Your task to perform on an android device: Open Google Maps and go to "Timeline" Image 0: 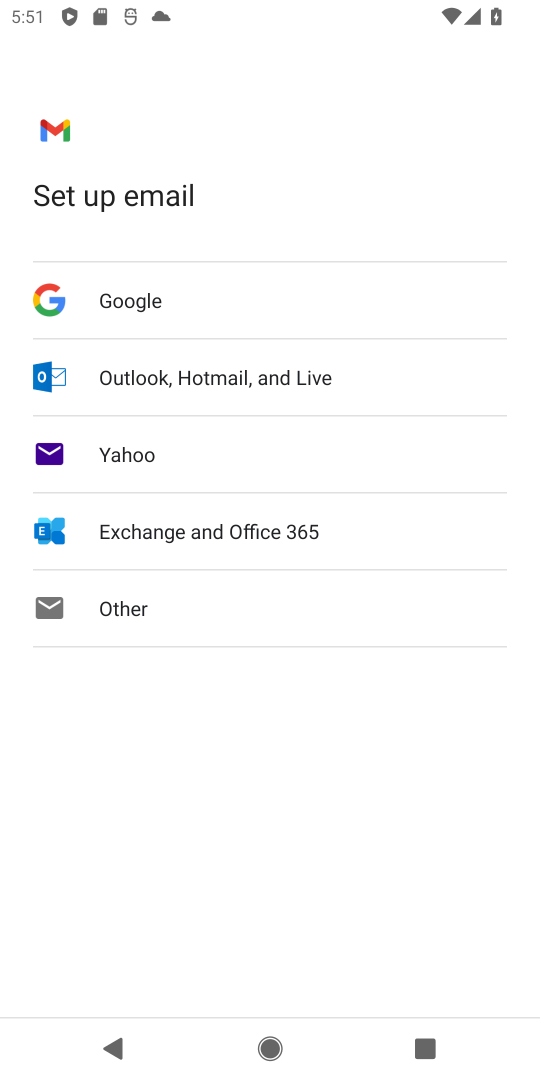
Step 0: press back button
Your task to perform on an android device: Open Google Maps and go to "Timeline" Image 1: 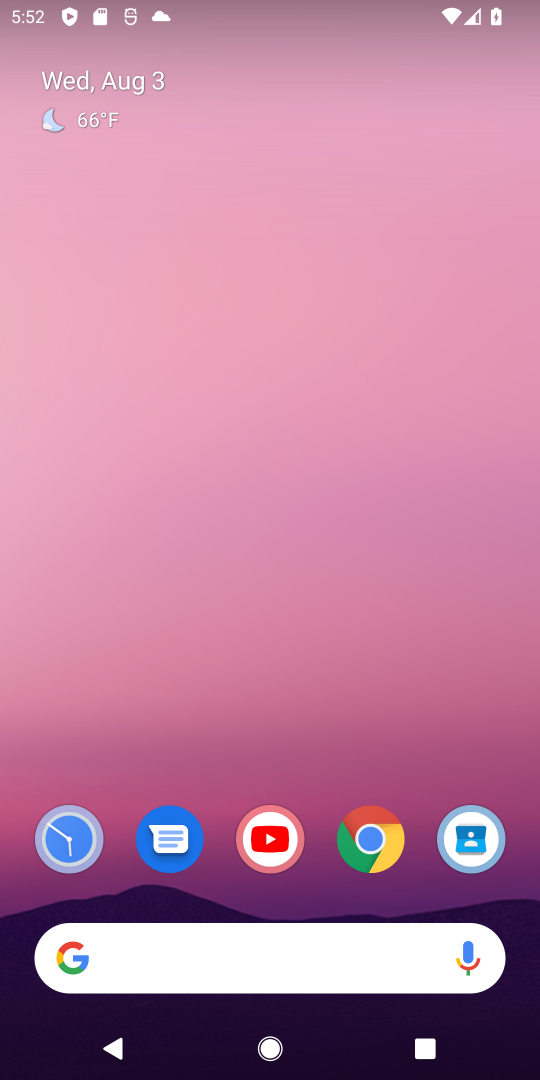
Step 1: drag from (326, 629) to (412, 0)
Your task to perform on an android device: Open Google Maps and go to "Timeline" Image 2: 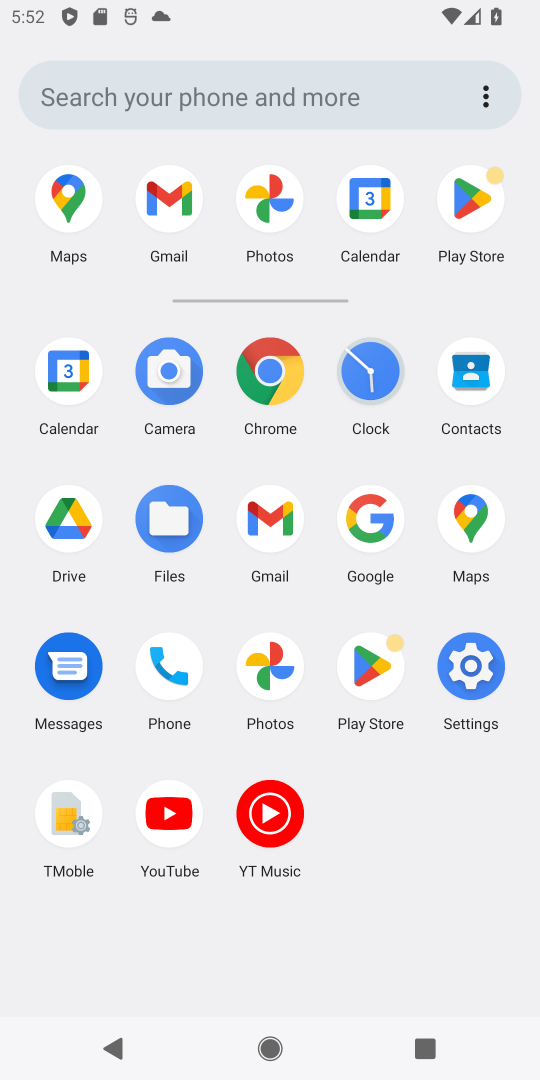
Step 2: click (479, 516)
Your task to perform on an android device: Open Google Maps and go to "Timeline" Image 3: 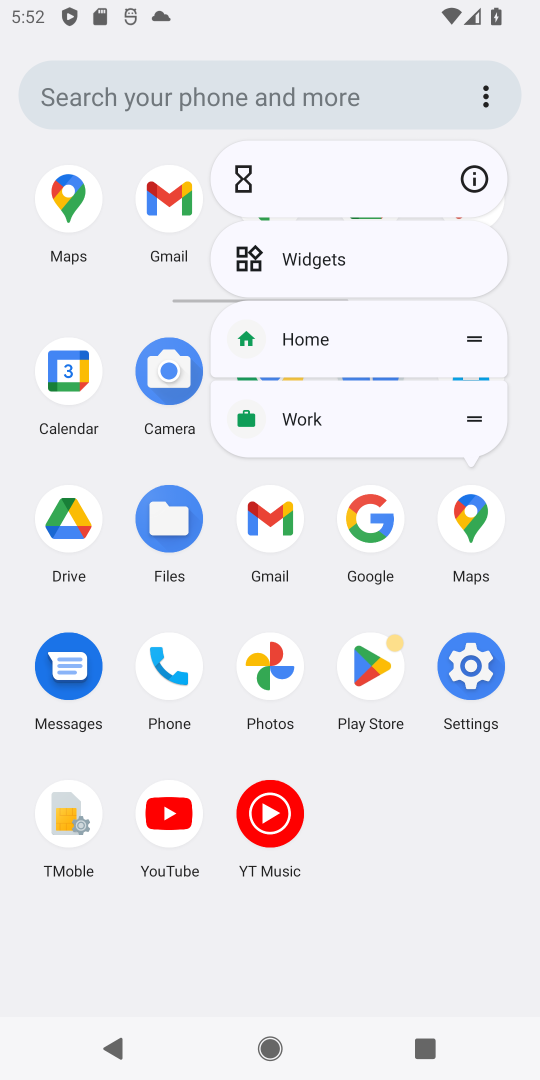
Step 3: click (473, 540)
Your task to perform on an android device: Open Google Maps and go to "Timeline" Image 4: 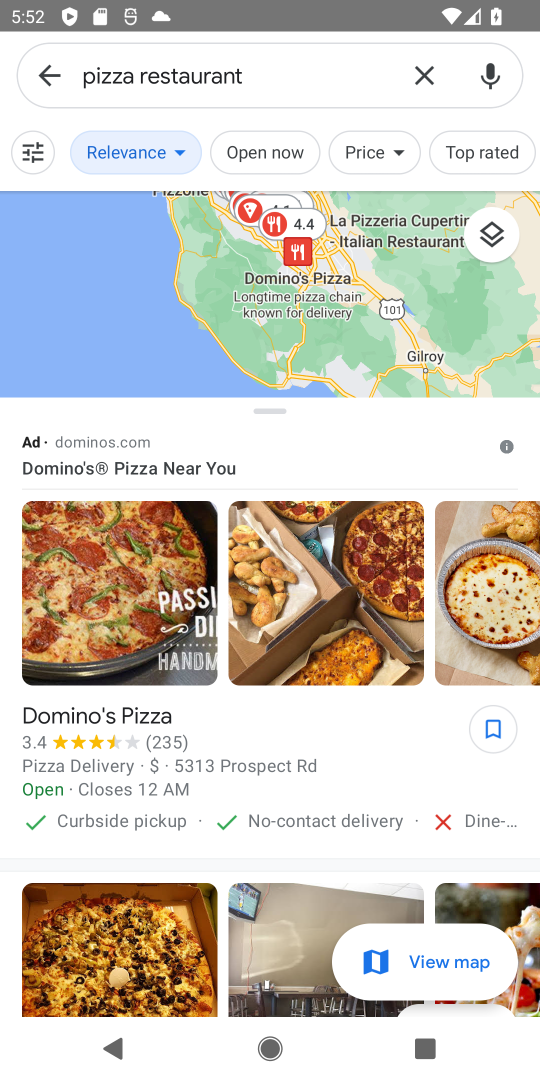
Step 4: click (54, 62)
Your task to perform on an android device: Open Google Maps and go to "Timeline" Image 5: 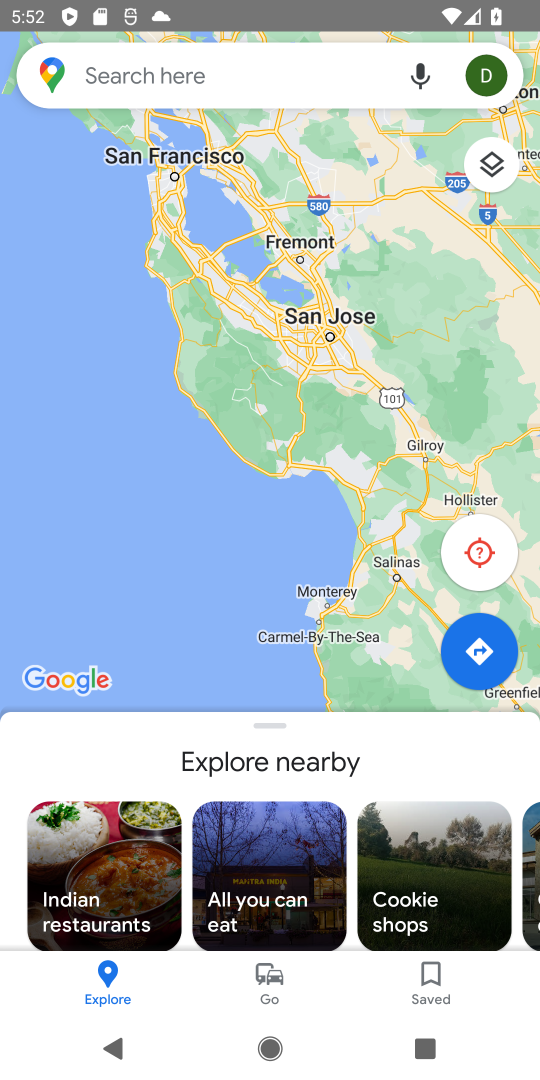
Step 5: click (52, 72)
Your task to perform on an android device: Open Google Maps and go to "Timeline" Image 6: 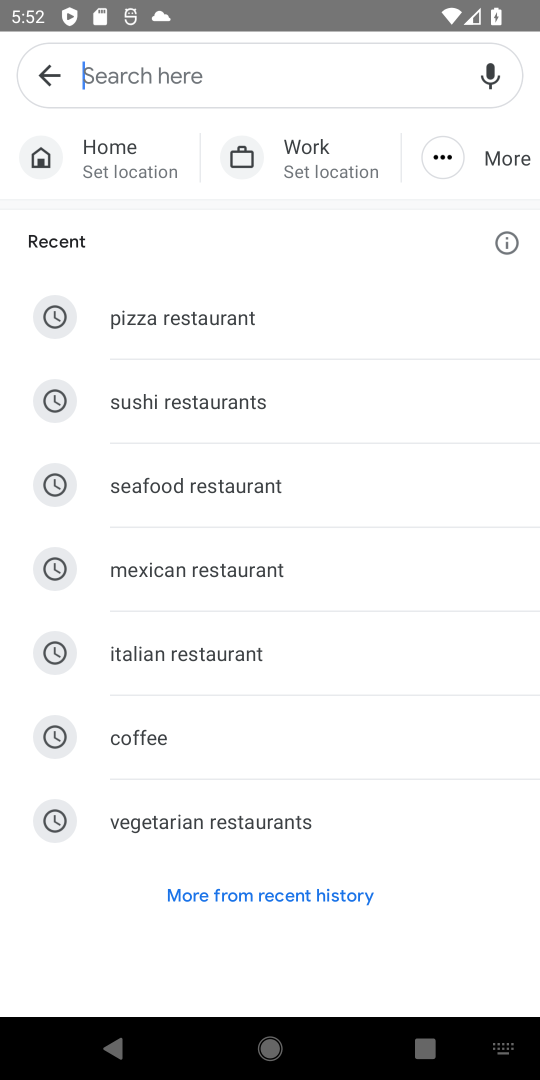
Step 6: click (54, 71)
Your task to perform on an android device: Open Google Maps and go to "Timeline" Image 7: 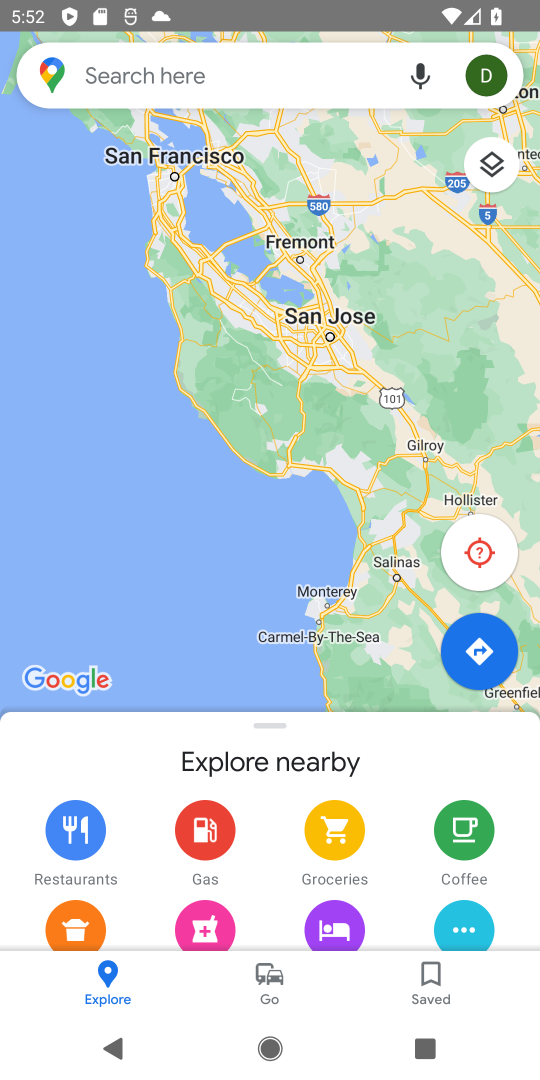
Step 7: drag from (268, 848) to (369, 115)
Your task to perform on an android device: Open Google Maps and go to "Timeline" Image 8: 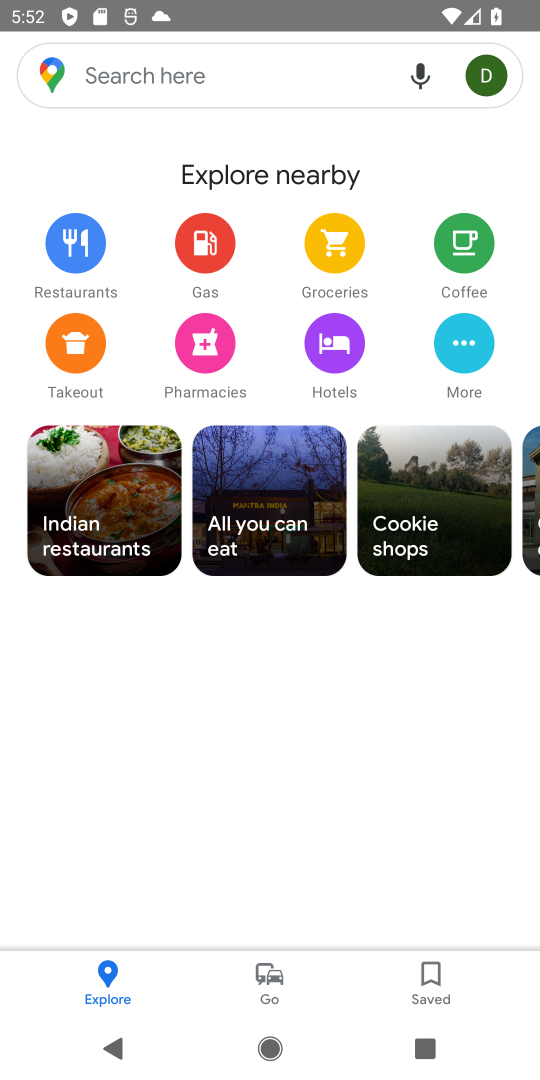
Step 8: click (487, 78)
Your task to perform on an android device: Open Google Maps and go to "Timeline" Image 9: 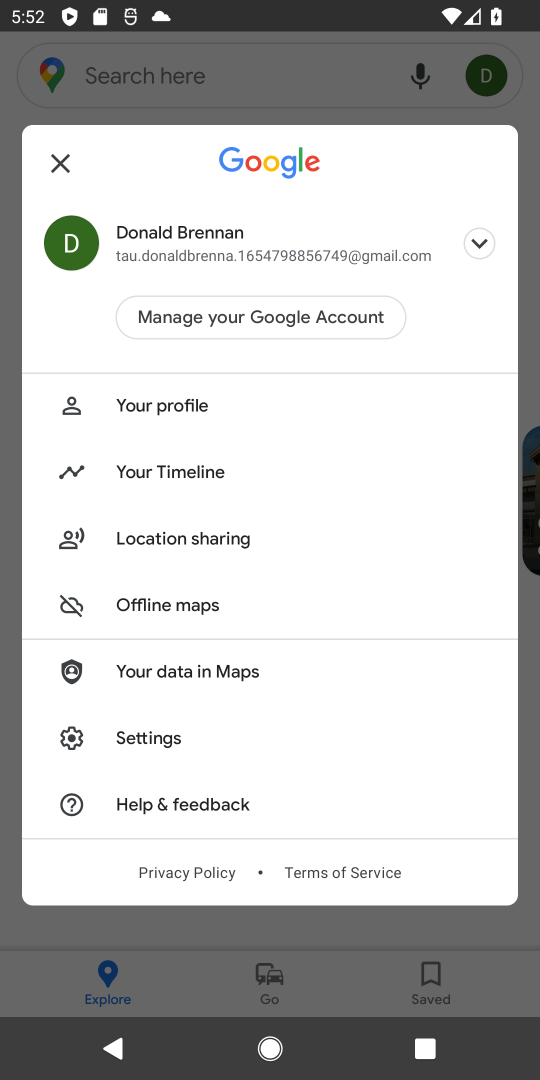
Step 9: click (209, 490)
Your task to perform on an android device: Open Google Maps and go to "Timeline" Image 10: 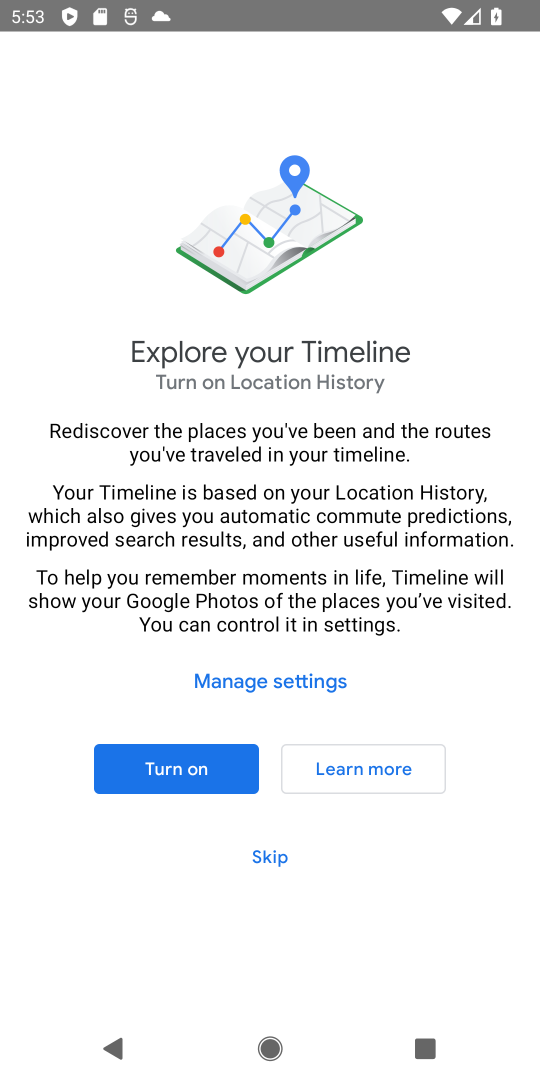
Step 10: task complete